Your task to perform on an android device: Open Youtube and go to "Your channel" Image 0: 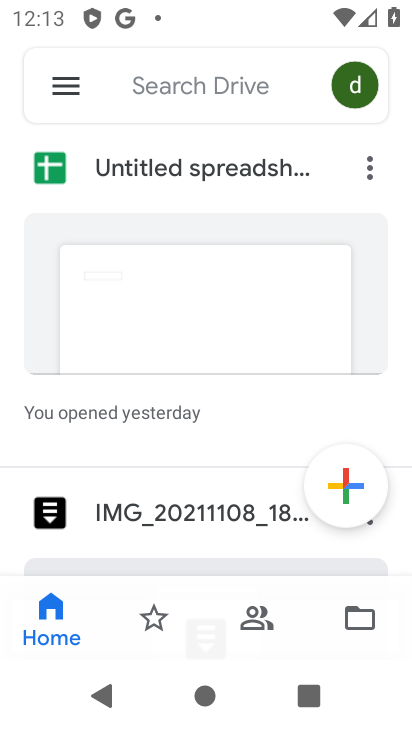
Step 0: press home button
Your task to perform on an android device: Open Youtube and go to "Your channel" Image 1: 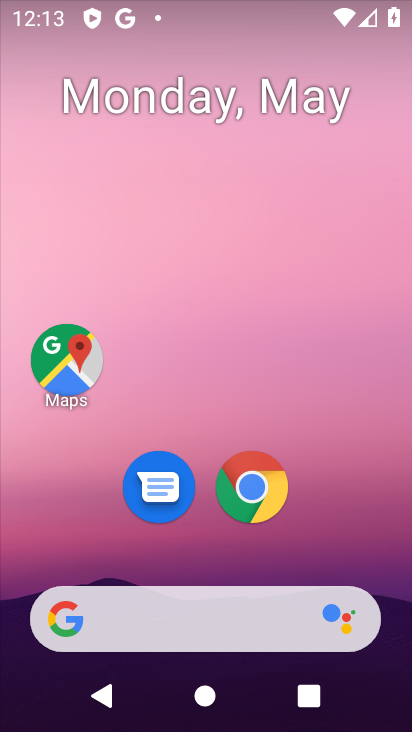
Step 1: drag from (340, 548) to (273, 3)
Your task to perform on an android device: Open Youtube and go to "Your channel" Image 2: 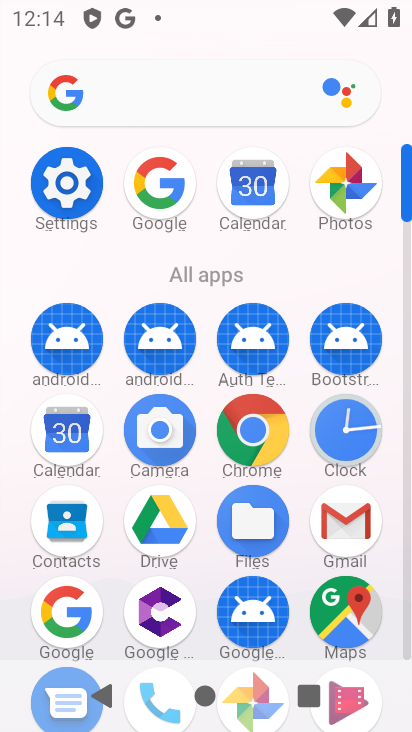
Step 2: drag from (210, 482) to (203, 252)
Your task to perform on an android device: Open Youtube and go to "Your channel" Image 3: 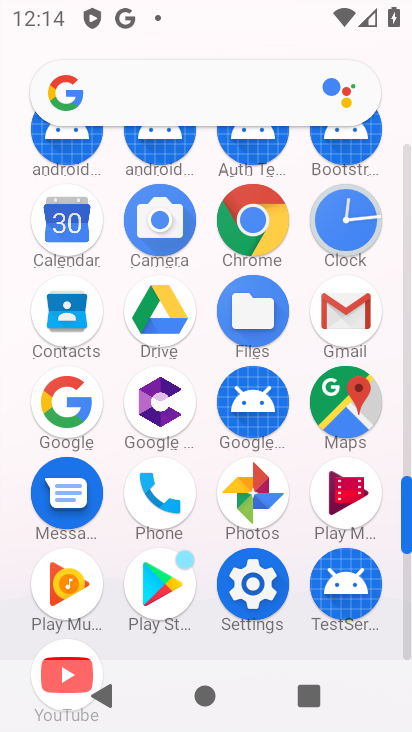
Step 3: drag from (208, 468) to (219, 301)
Your task to perform on an android device: Open Youtube and go to "Your channel" Image 4: 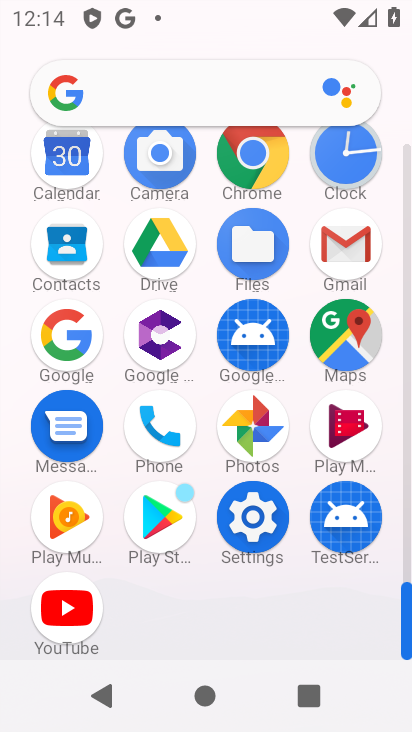
Step 4: click (67, 606)
Your task to perform on an android device: Open Youtube and go to "Your channel" Image 5: 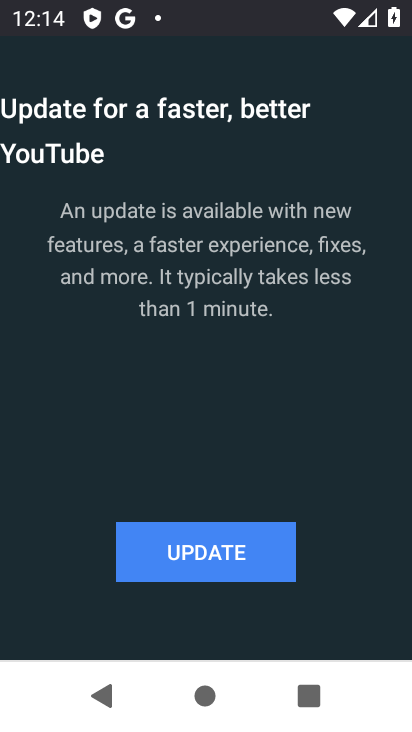
Step 5: click (169, 549)
Your task to perform on an android device: Open Youtube and go to "Your channel" Image 6: 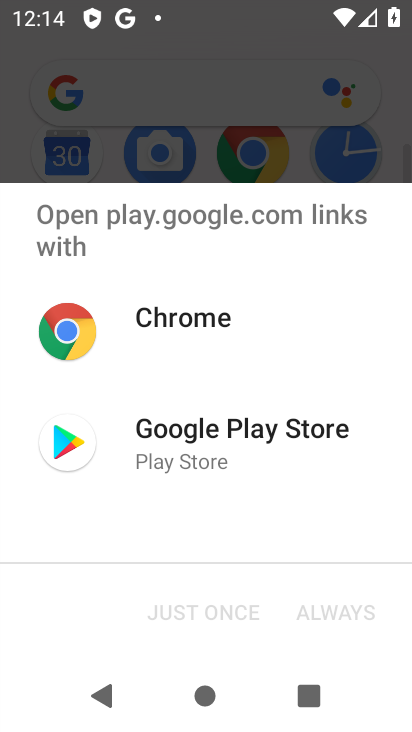
Step 6: click (200, 439)
Your task to perform on an android device: Open Youtube and go to "Your channel" Image 7: 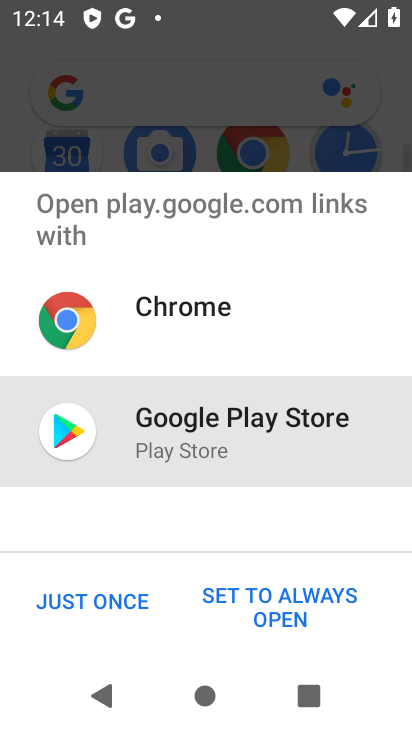
Step 7: click (128, 602)
Your task to perform on an android device: Open Youtube and go to "Your channel" Image 8: 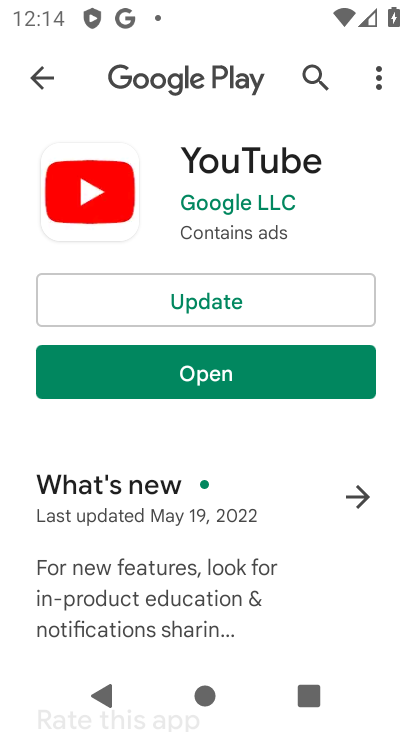
Step 8: click (240, 303)
Your task to perform on an android device: Open Youtube and go to "Your channel" Image 9: 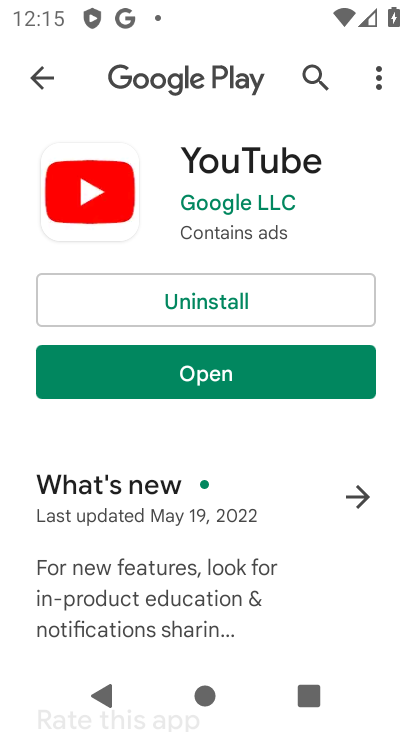
Step 9: click (217, 377)
Your task to perform on an android device: Open Youtube and go to "Your channel" Image 10: 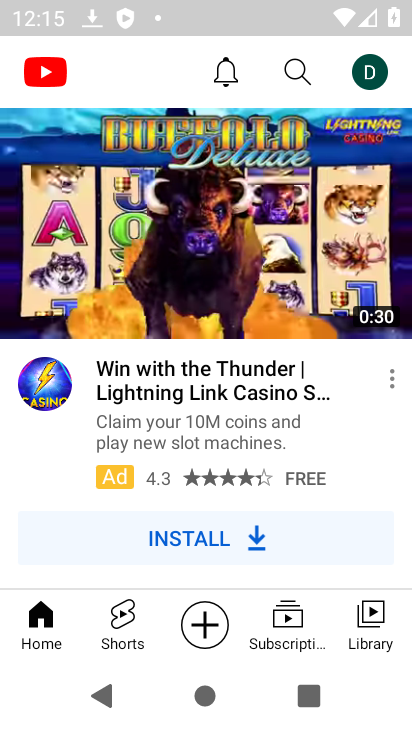
Step 10: click (369, 70)
Your task to perform on an android device: Open Youtube and go to "Your channel" Image 11: 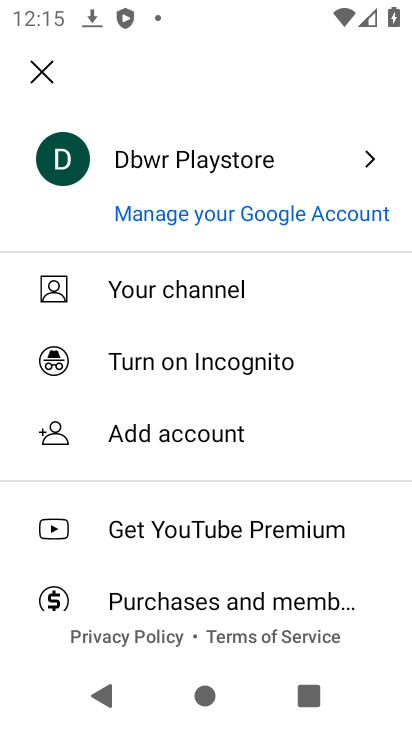
Step 11: click (219, 288)
Your task to perform on an android device: Open Youtube and go to "Your channel" Image 12: 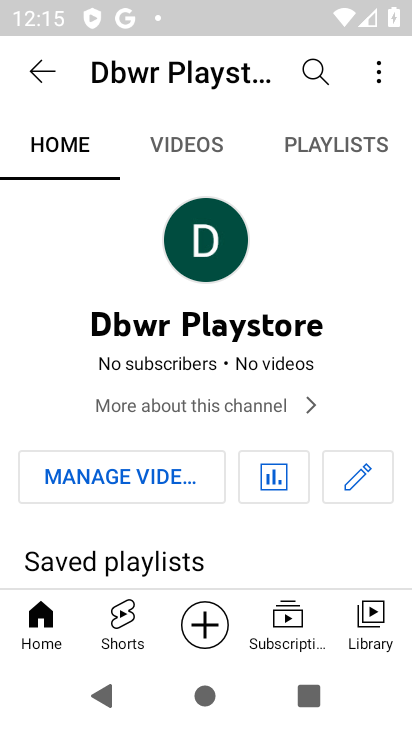
Step 12: task complete